Your task to perform on an android device: change your default location settings in chrome Image 0: 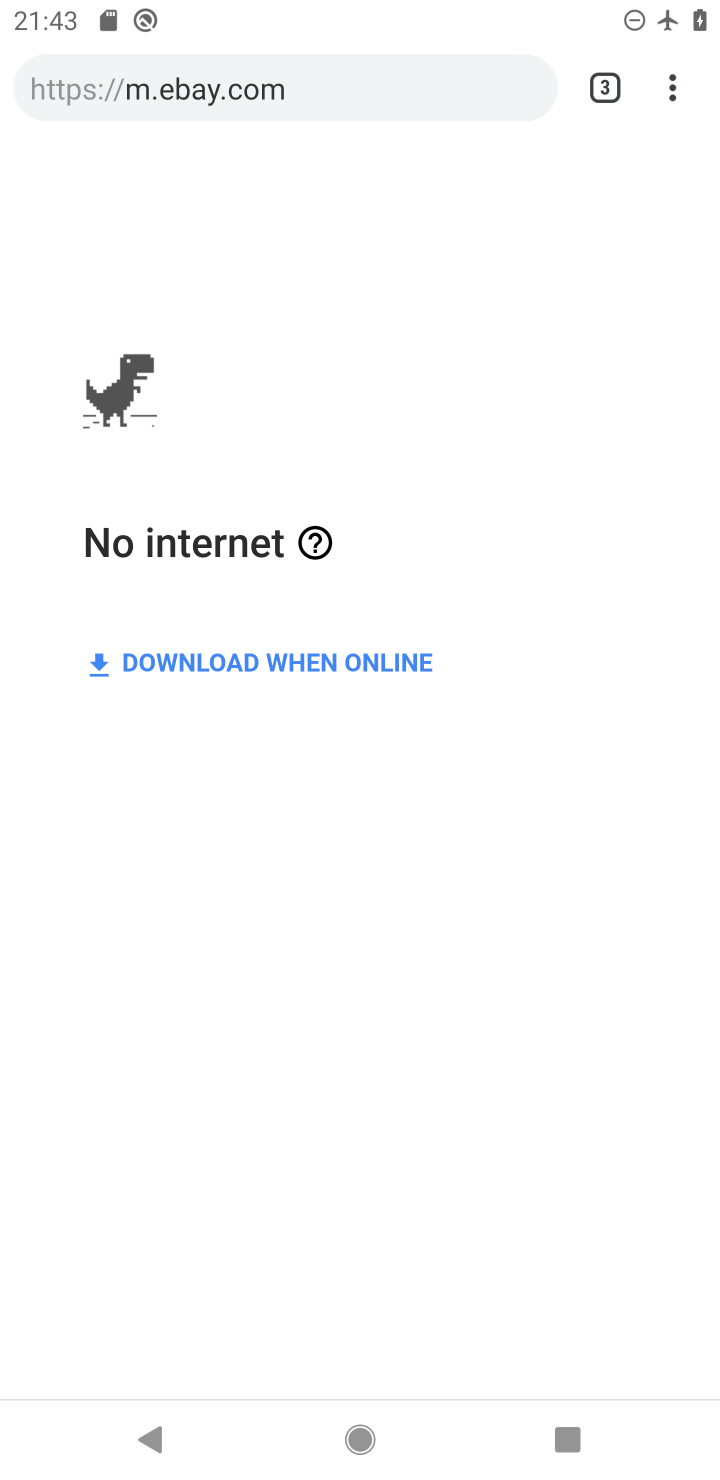
Step 0: press home button
Your task to perform on an android device: change your default location settings in chrome Image 1: 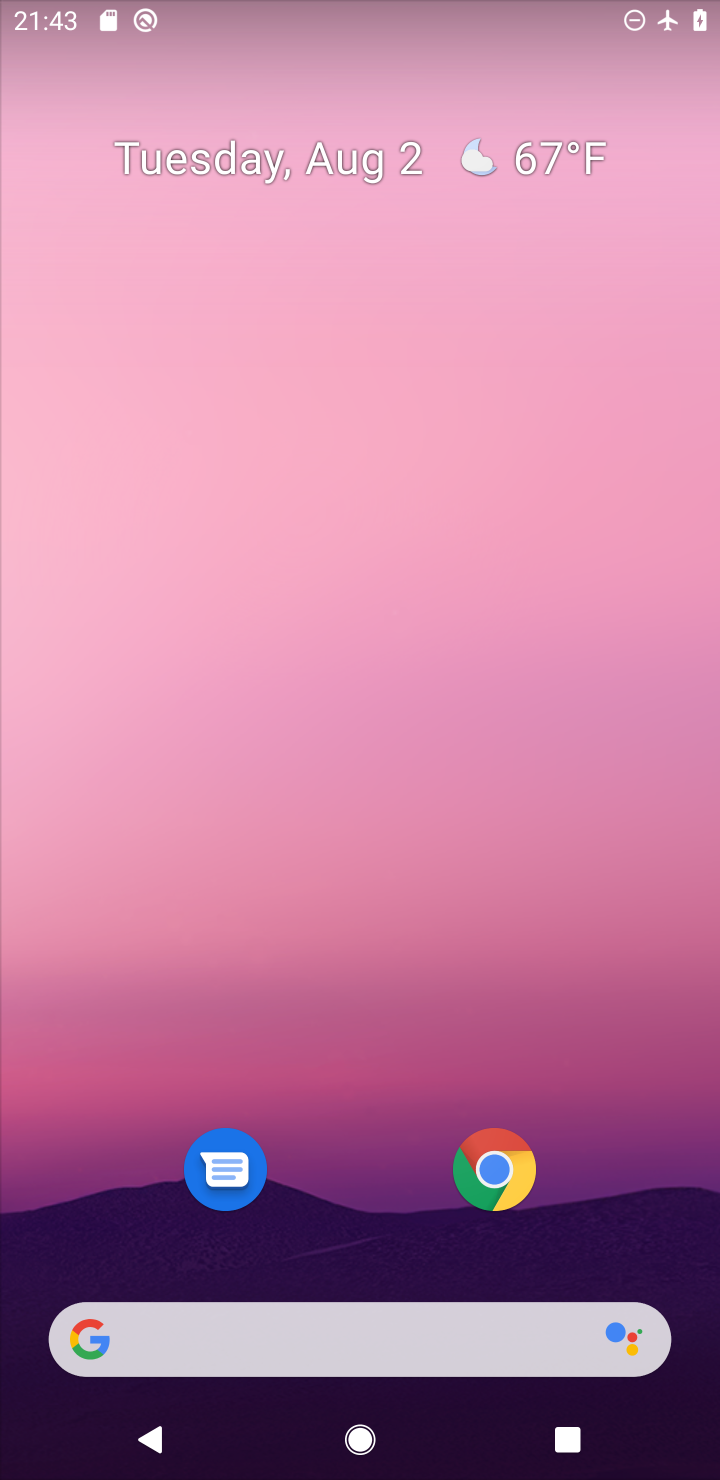
Step 1: click (499, 1175)
Your task to perform on an android device: change your default location settings in chrome Image 2: 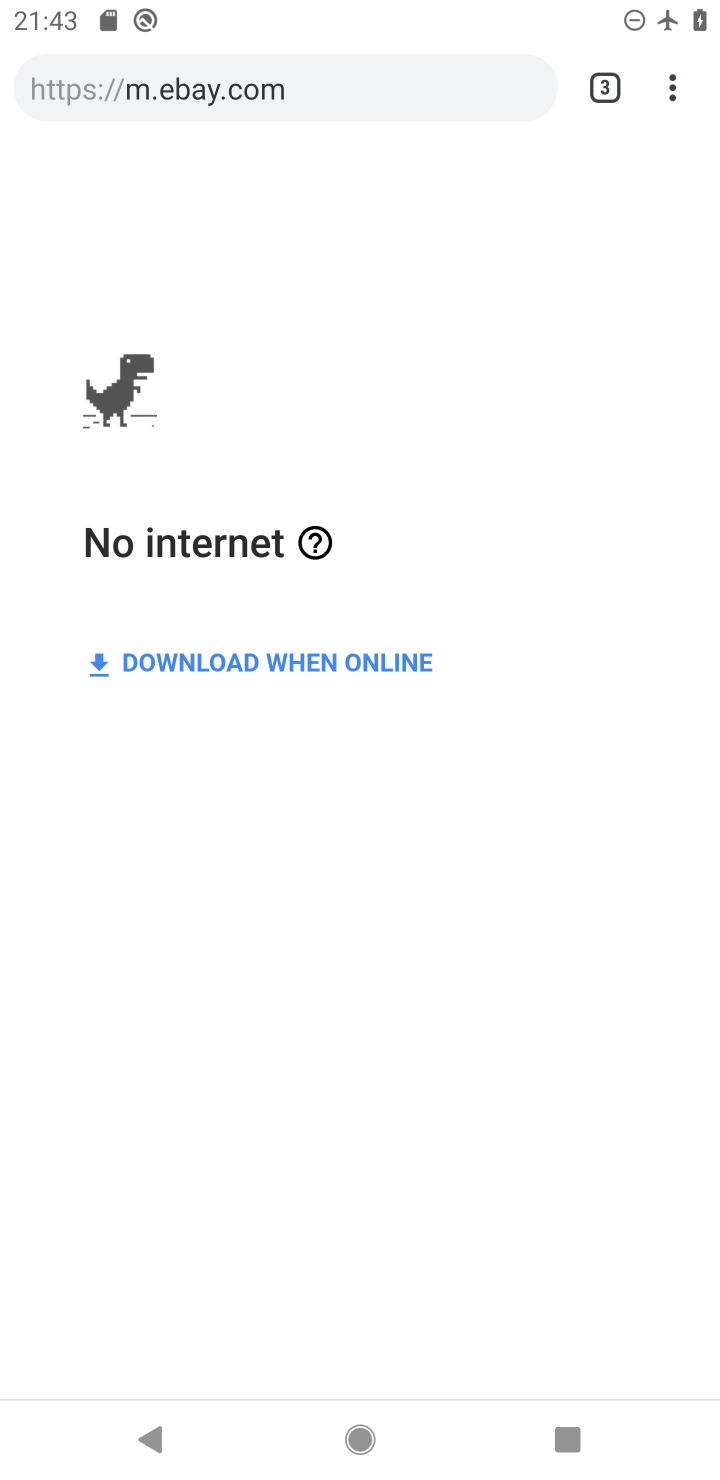
Step 2: click (499, 1175)
Your task to perform on an android device: change your default location settings in chrome Image 3: 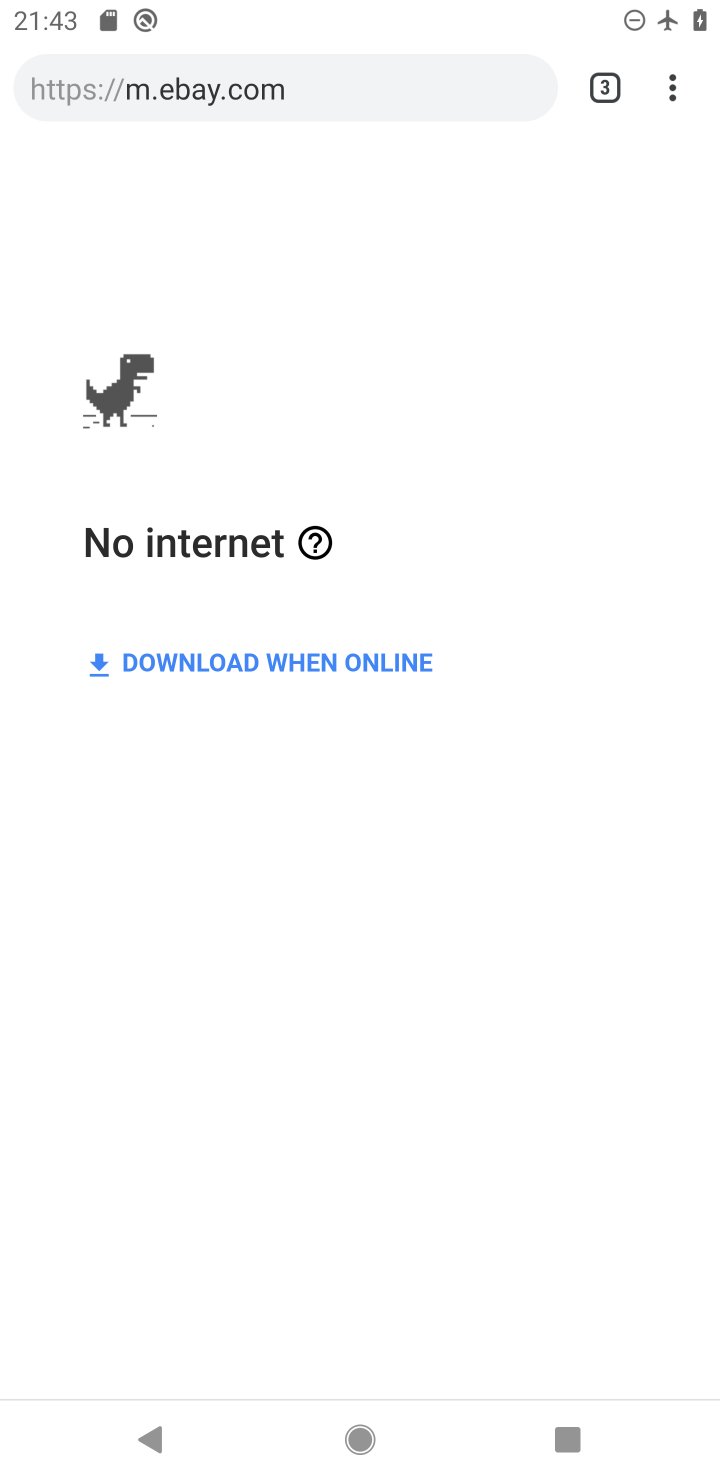
Step 3: click (668, 99)
Your task to perform on an android device: change your default location settings in chrome Image 4: 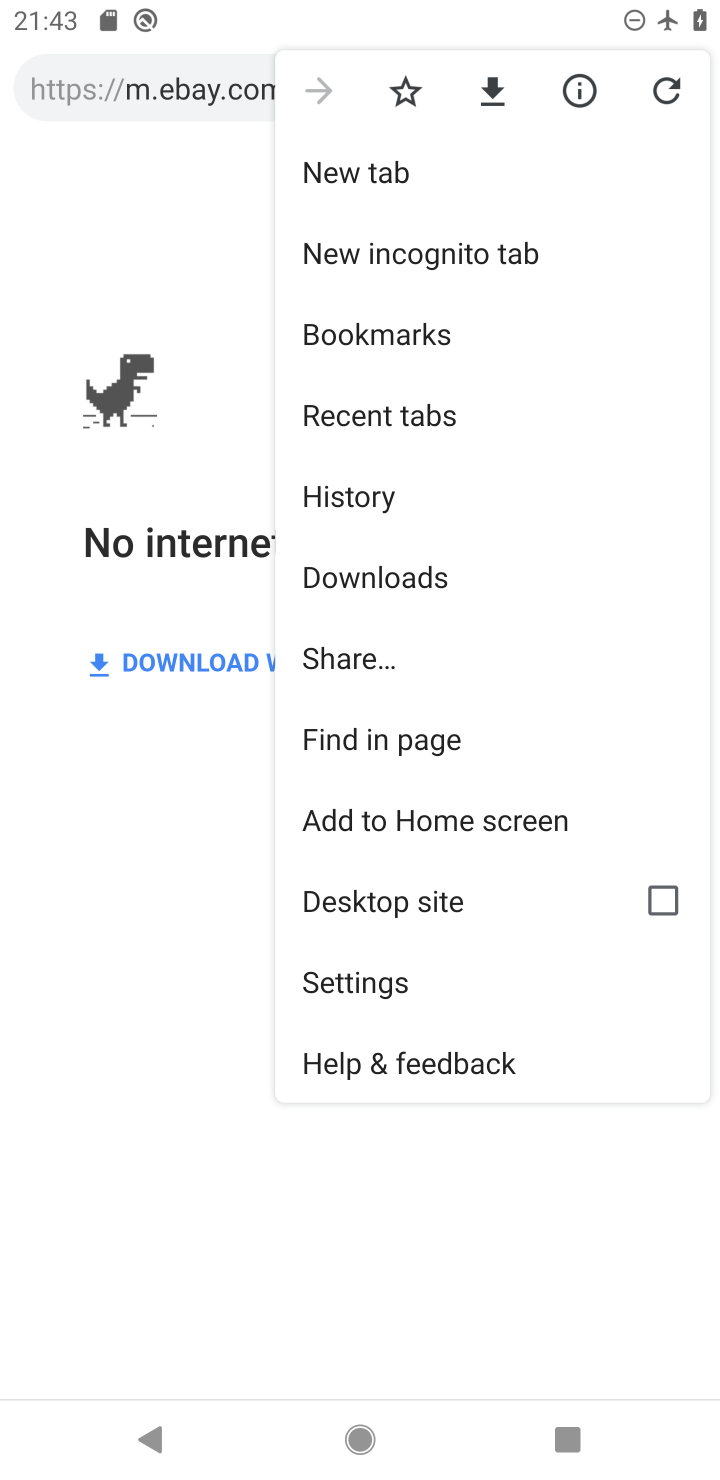
Step 4: click (354, 981)
Your task to perform on an android device: change your default location settings in chrome Image 5: 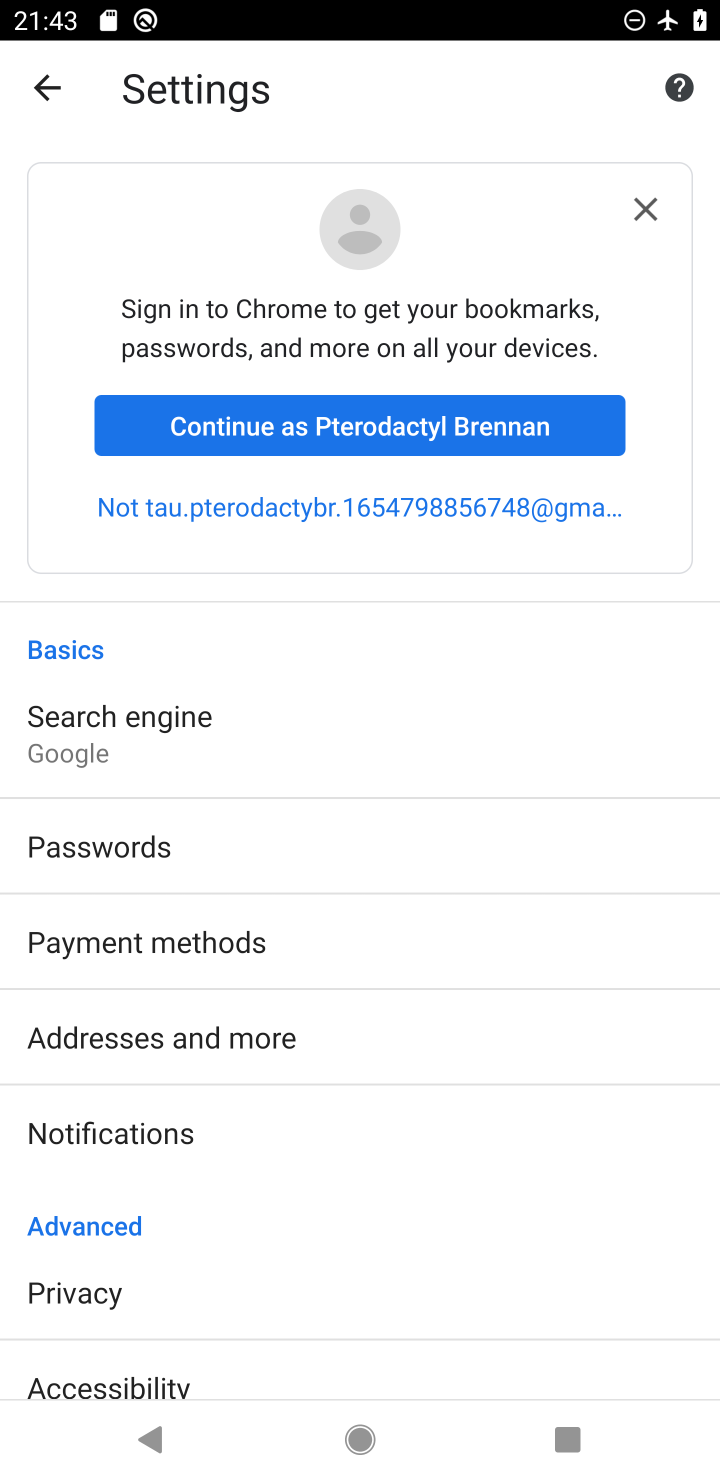
Step 5: drag from (194, 1307) to (186, 724)
Your task to perform on an android device: change your default location settings in chrome Image 6: 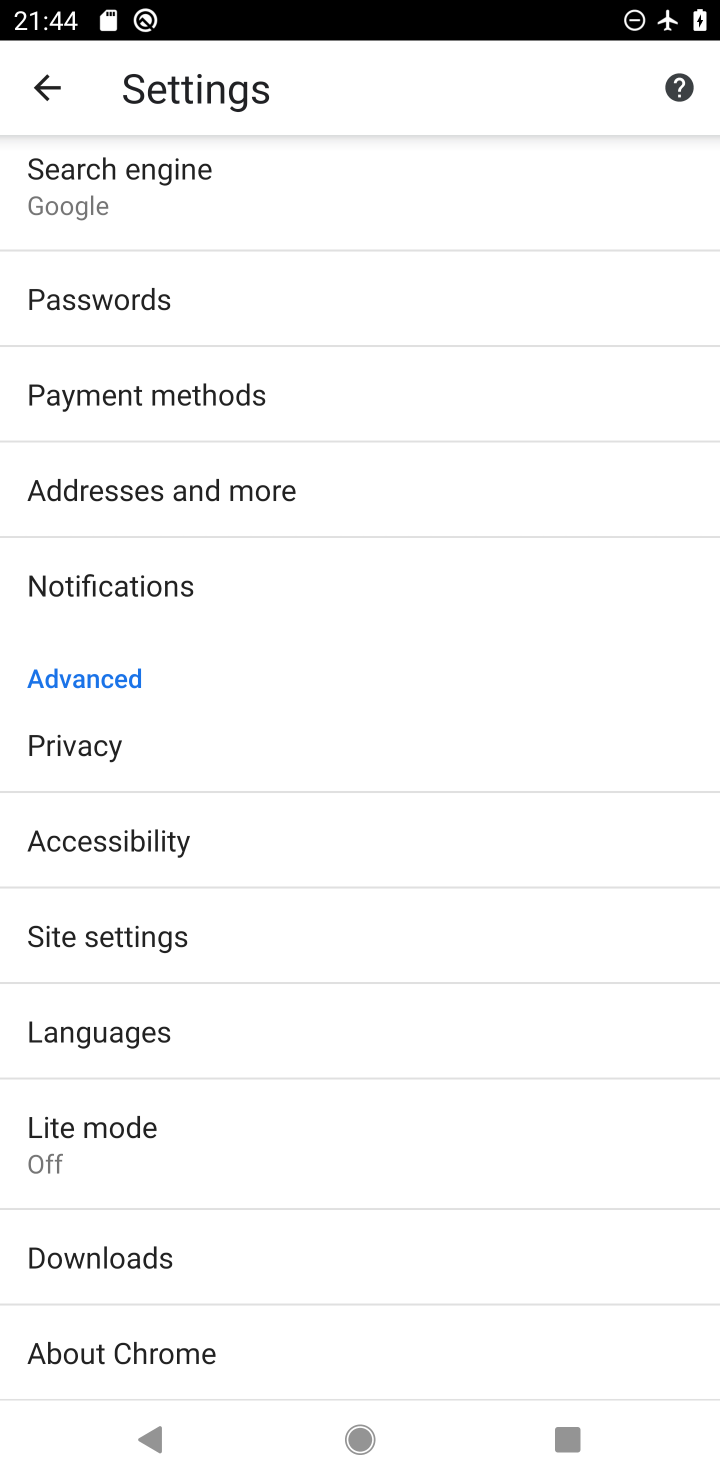
Step 6: drag from (239, 1326) to (217, 755)
Your task to perform on an android device: change your default location settings in chrome Image 7: 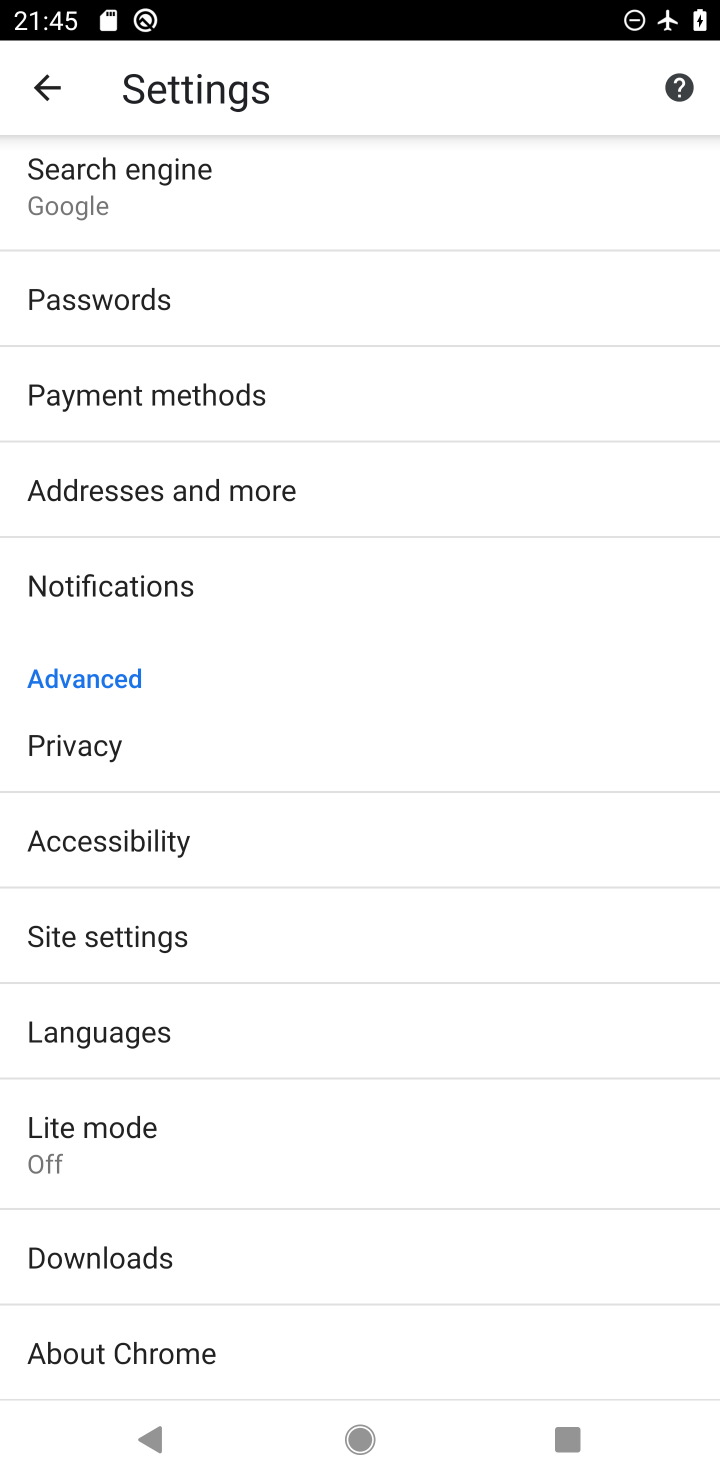
Step 7: click (108, 940)
Your task to perform on an android device: change your default location settings in chrome Image 8: 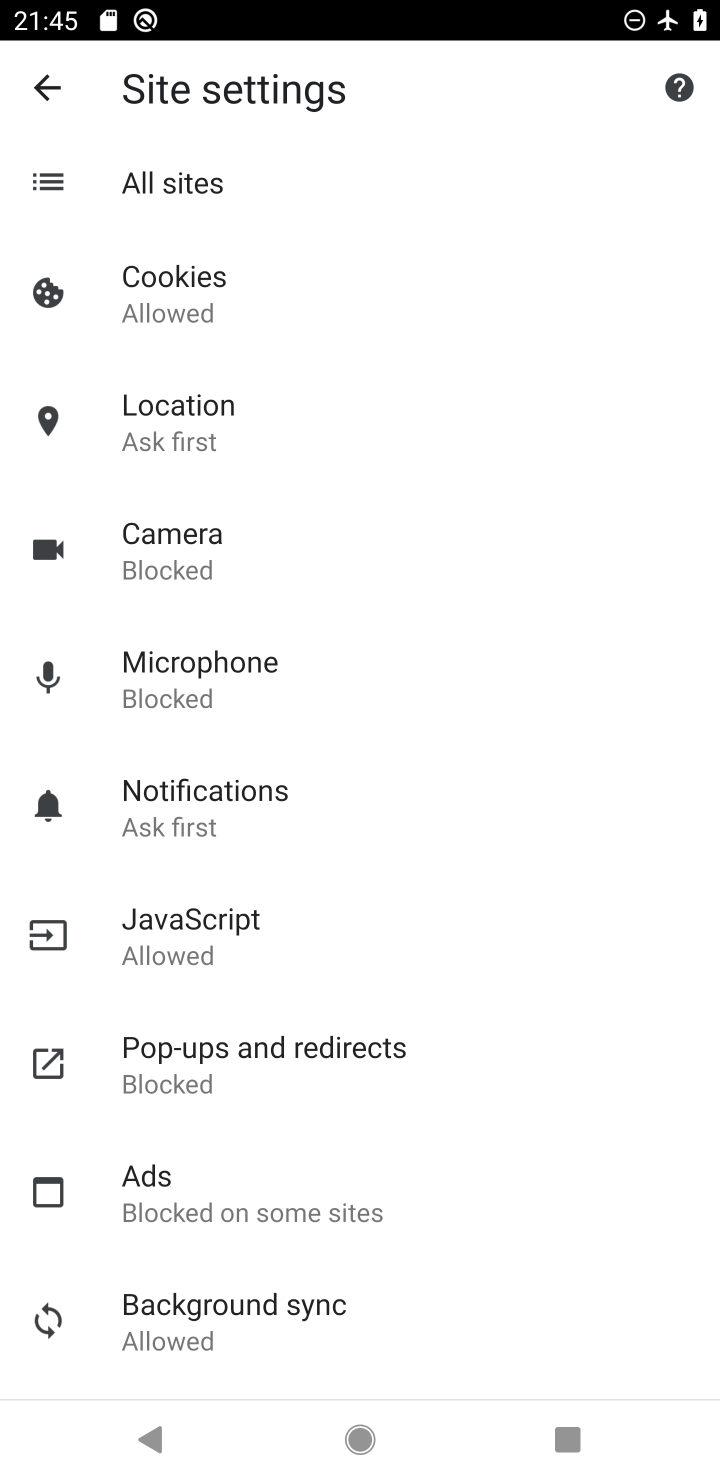
Step 8: click (191, 411)
Your task to perform on an android device: change your default location settings in chrome Image 9: 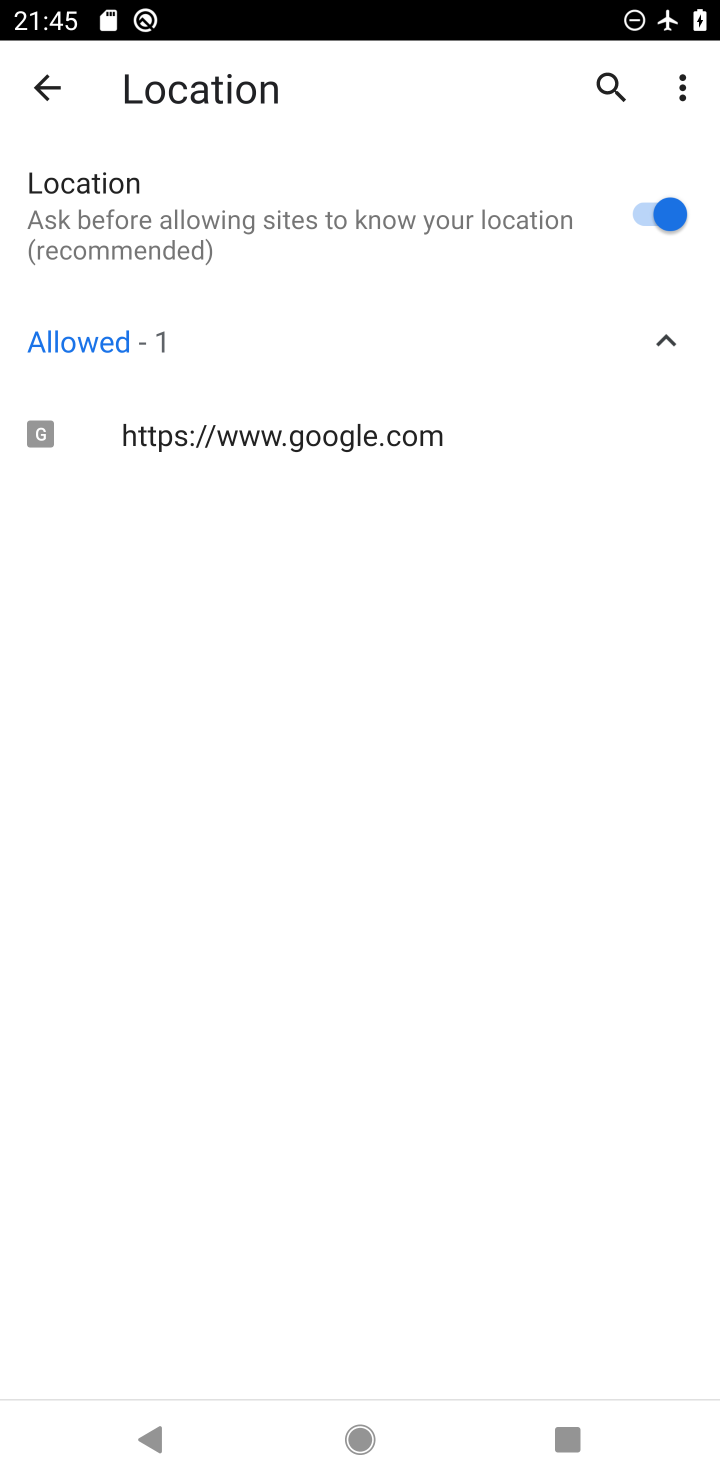
Step 9: click (661, 226)
Your task to perform on an android device: change your default location settings in chrome Image 10: 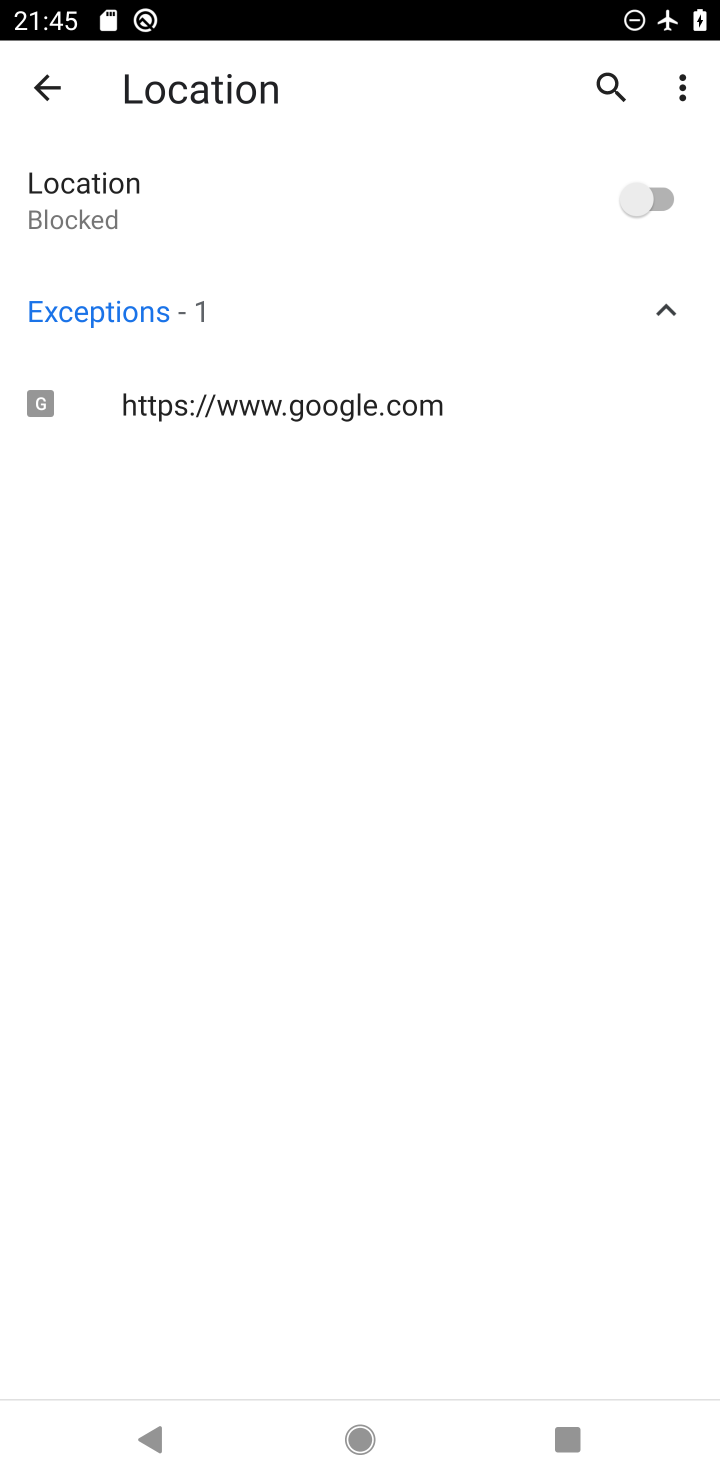
Step 10: task complete